Your task to perform on an android device: Go to sound settings Image 0: 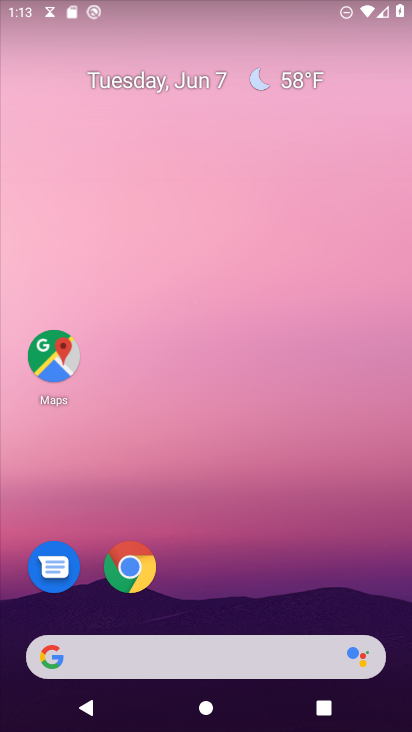
Step 0: drag from (390, 705) to (349, 78)
Your task to perform on an android device: Go to sound settings Image 1: 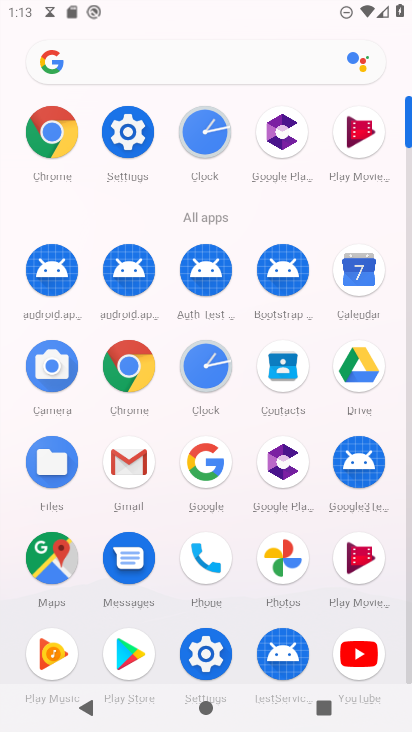
Step 1: click (215, 662)
Your task to perform on an android device: Go to sound settings Image 2: 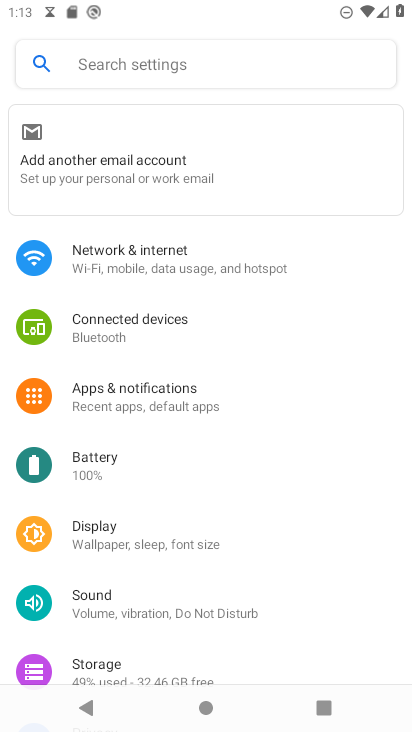
Step 2: drag from (162, 641) to (174, 331)
Your task to perform on an android device: Go to sound settings Image 3: 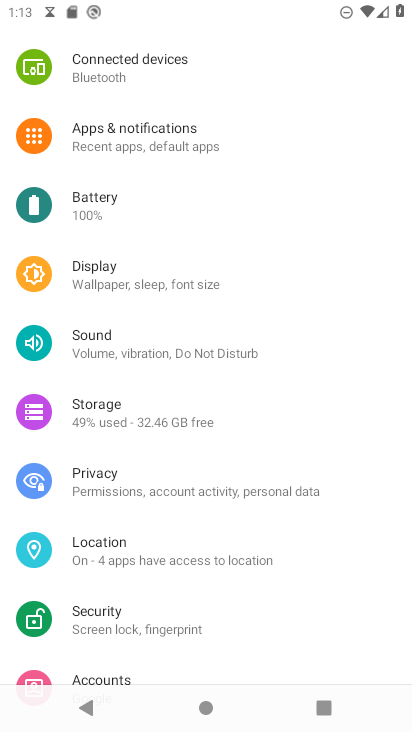
Step 3: click (92, 508)
Your task to perform on an android device: Go to sound settings Image 4: 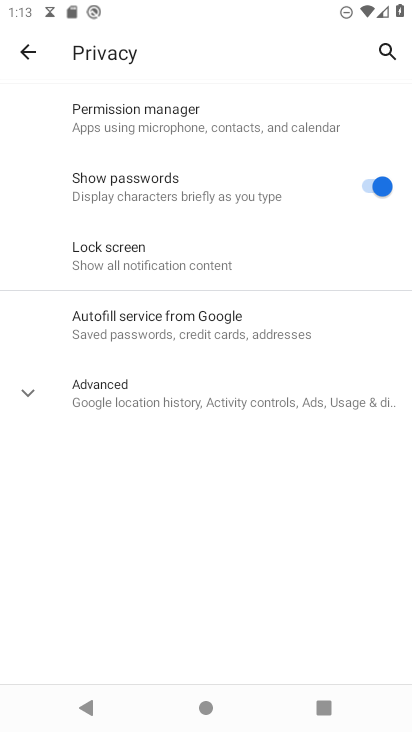
Step 4: click (31, 47)
Your task to perform on an android device: Go to sound settings Image 5: 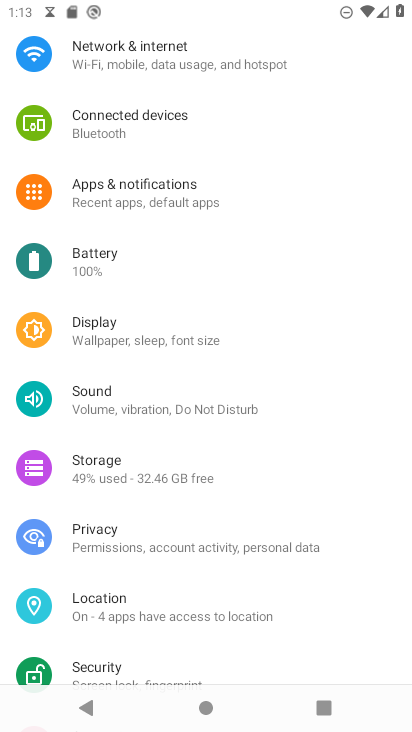
Step 5: click (96, 397)
Your task to perform on an android device: Go to sound settings Image 6: 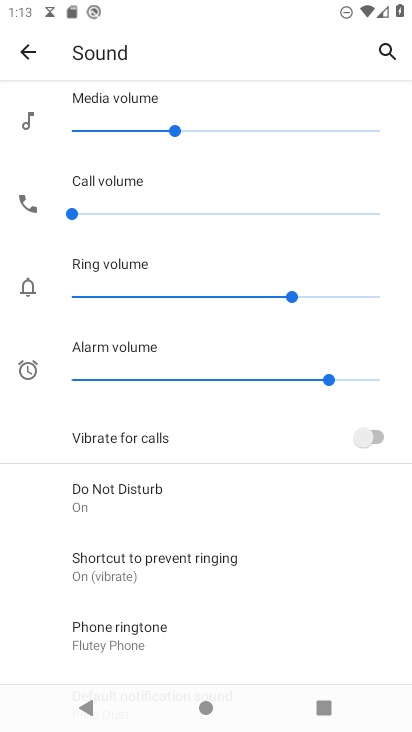
Step 6: drag from (185, 653) to (212, 340)
Your task to perform on an android device: Go to sound settings Image 7: 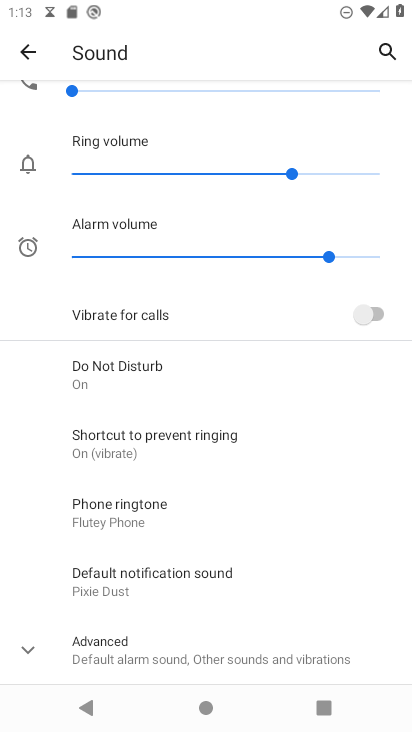
Step 7: click (43, 637)
Your task to perform on an android device: Go to sound settings Image 8: 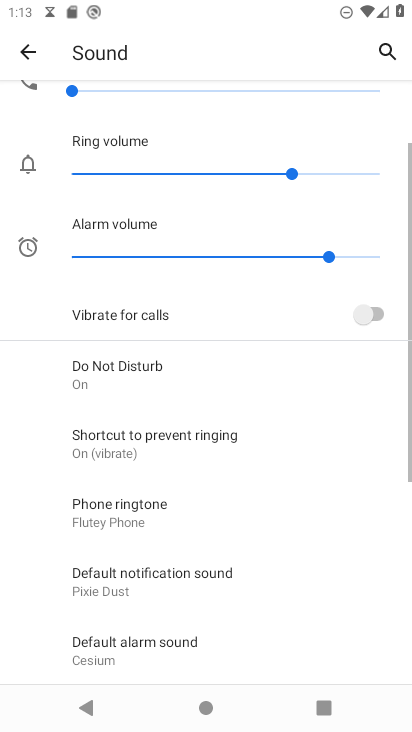
Step 8: task complete